Your task to perform on an android device: toggle pop-ups in chrome Image 0: 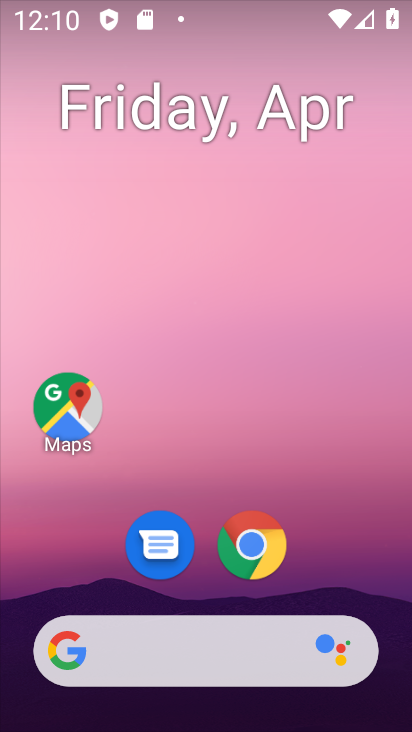
Step 0: click (246, 554)
Your task to perform on an android device: toggle pop-ups in chrome Image 1: 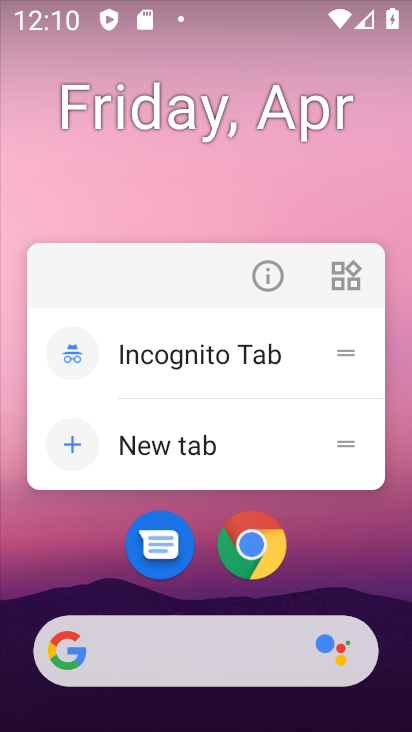
Step 1: click (250, 552)
Your task to perform on an android device: toggle pop-ups in chrome Image 2: 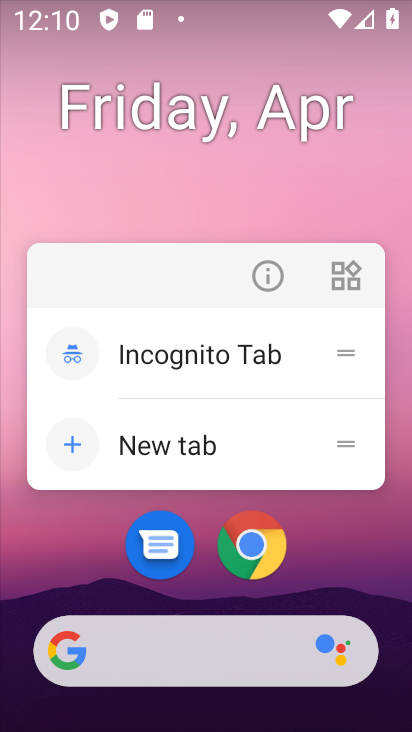
Step 2: click (267, 524)
Your task to perform on an android device: toggle pop-ups in chrome Image 3: 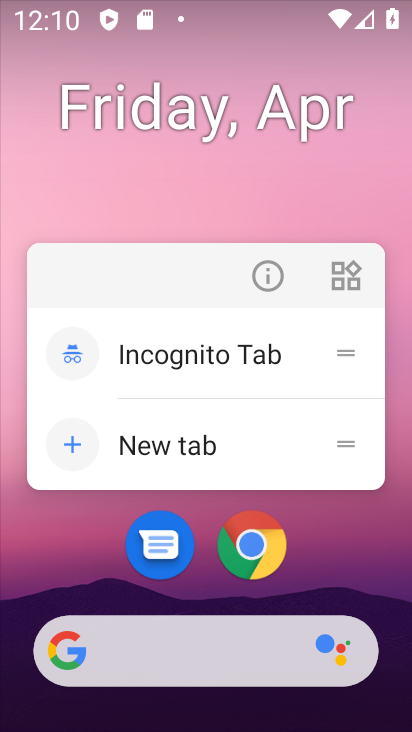
Step 3: click (245, 556)
Your task to perform on an android device: toggle pop-ups in chrome Image 4: 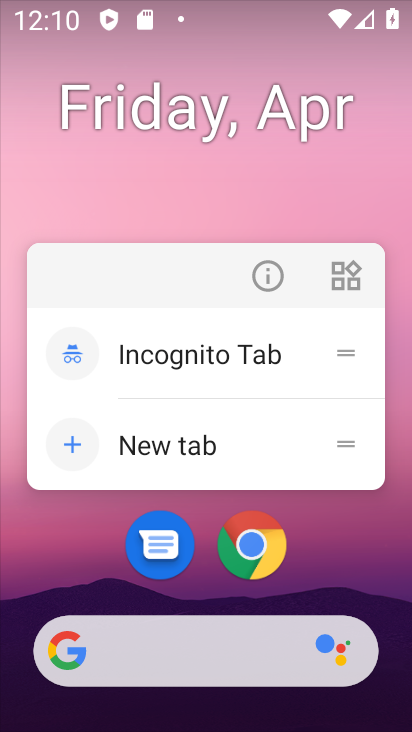
Step 4: click (244, 547)
Your task to perform on an android device: toggle pop-ups in chrome Image 5: 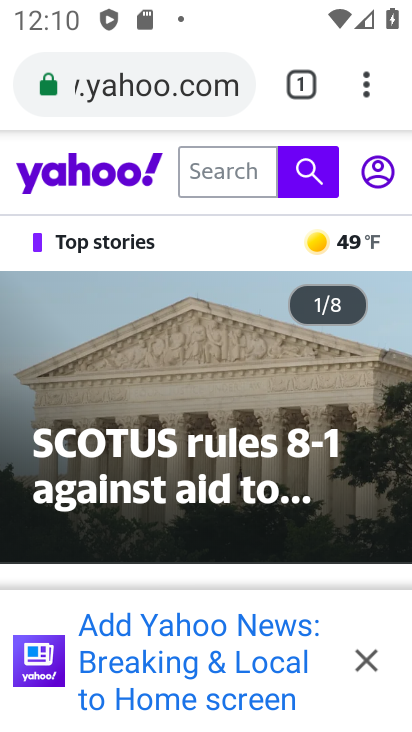
Step 5: click (367, 73)
Your task to perform on an android device: toggle pop-ups in chrome Image 6: 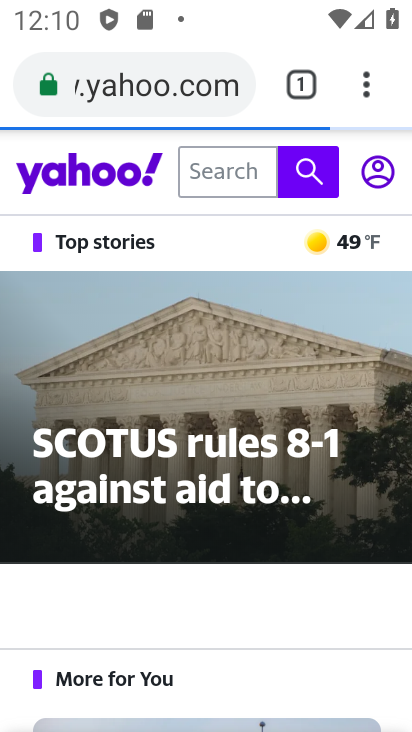
Step 6: click (360, 84)
Your task to perform on an android device: toggle pop-ups in chrome Image 7: 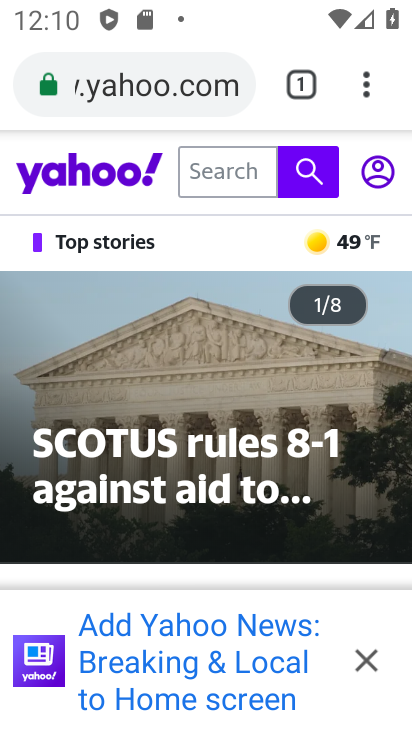
Step 7: click (369, 84)
Your task to perform on an android device: toggle pop-ups in chrome Image 8: 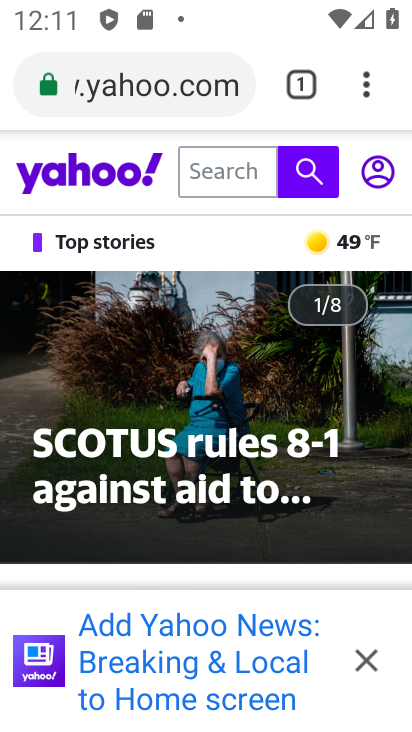
Step 8: click (362, 84)
Your task to perform on an android device: toggle pop-ups in chrome Image 9: 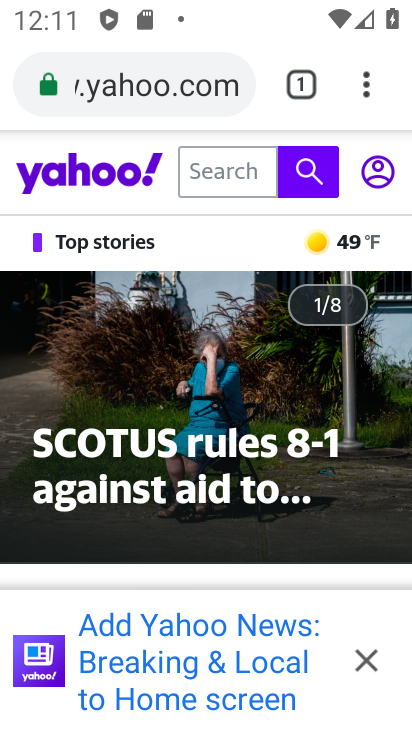
Step 9: click (364, 70)
Your task to perform on an android device: toggle pop-ups in chrome Image 10: 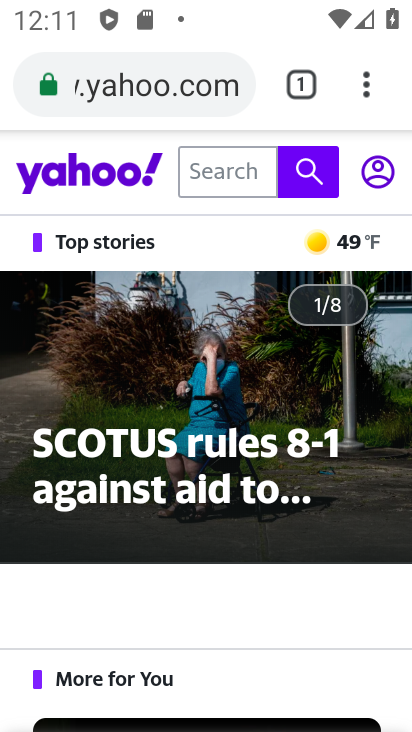
Step 10: click (364, 90)
Your task to perform on an android device: toggle pop-ups in chrome Image 11: 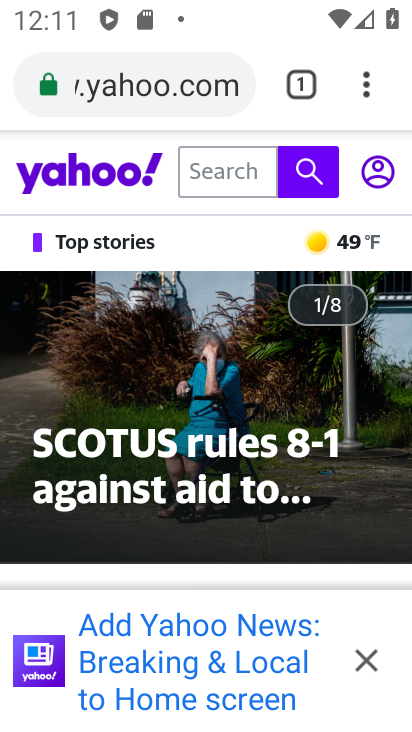
Step 11: click (367, 82)
Your task to perform on an android device: toggle pop-ups in chrome Image 12: 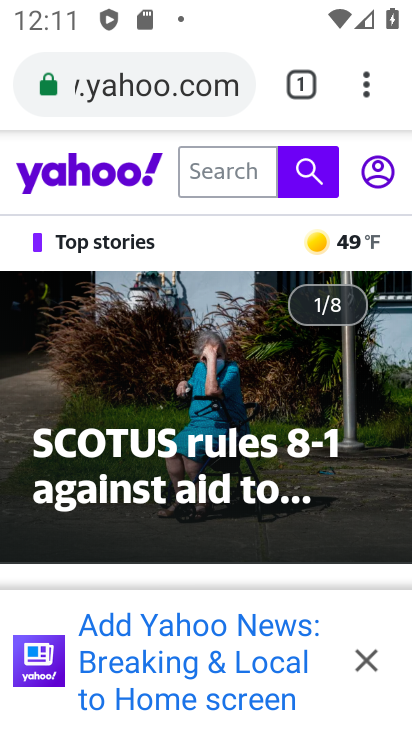
Step 12: click (367, 85)
Your task to perform on an android device: toggle pop-ups in chrome Image 13: 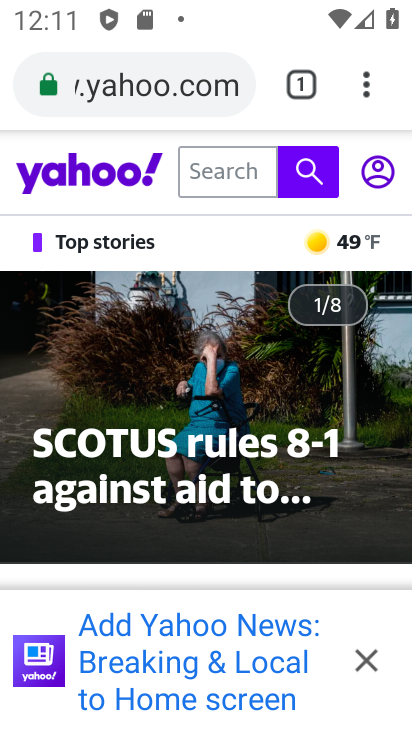
Step 13: click (366, 75)
Your task to perform on an android device: toggle pop-ups in chrome Image 14: 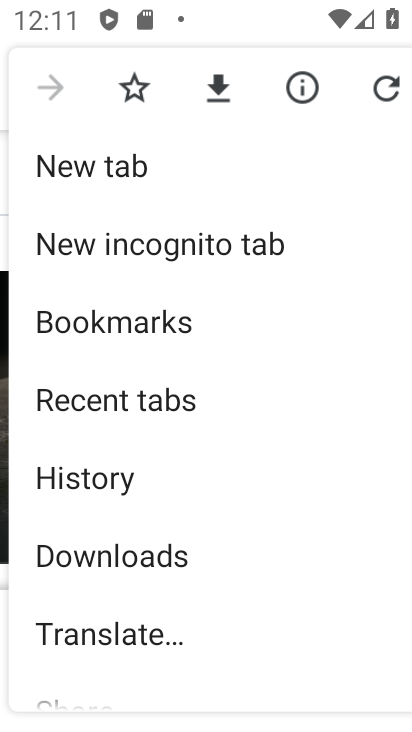
Step 14: drag from (170, 641) to (183, 218)
Your task to perform on an android device: toggle pop-ups in chrome Image 15: 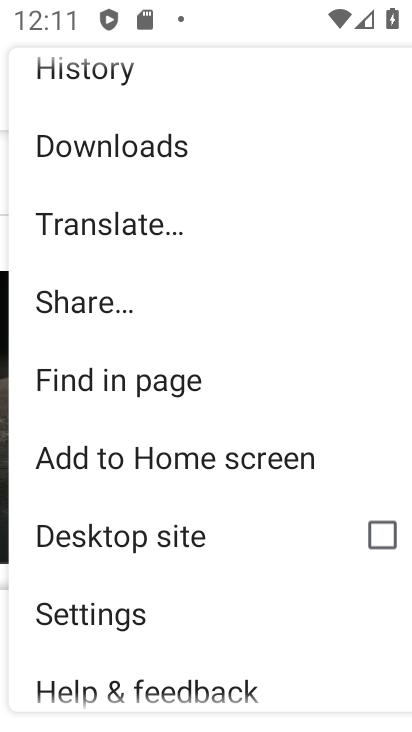
Step 15: click (106, 611)
Your task to perform on an android device: toggle pop-ups in chrome Image 16: 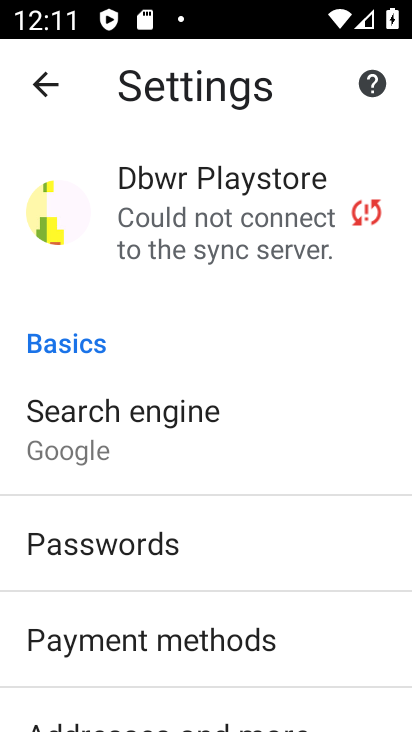
Step 16: drag from (266, 630) to (270, 139)
Your task to perform on an android device: toggle pop-ups in chrome Image 17: 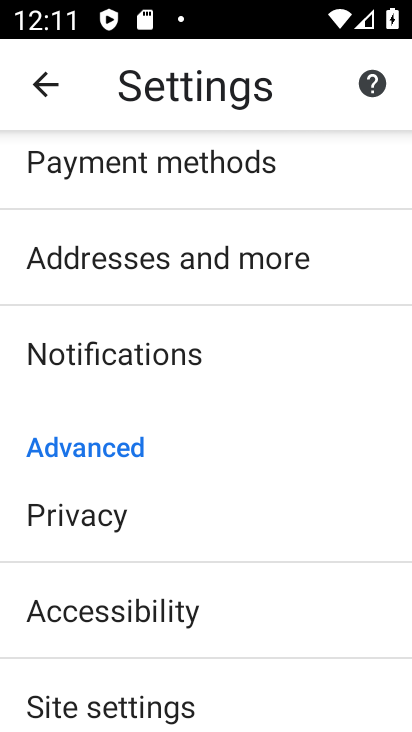
Step 17: drag from (156, 666) to (207, 190)
Your task to perform on an android device: toggle pop-ups in chrome Image 18: 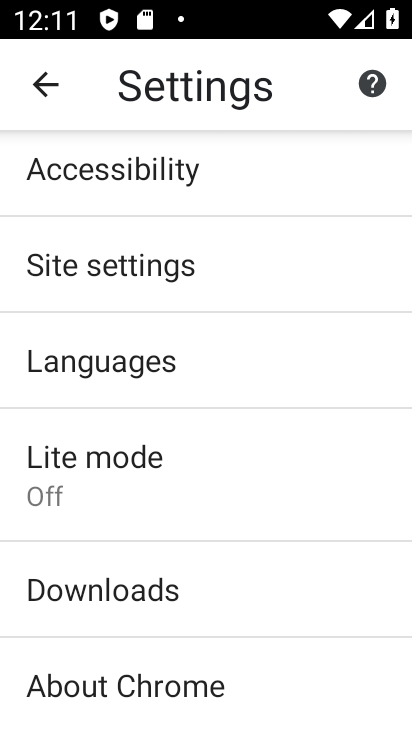
Step 18: click (111, 271)
Your task to perform on an android device: toggle pop-ups in chrome Image 19: 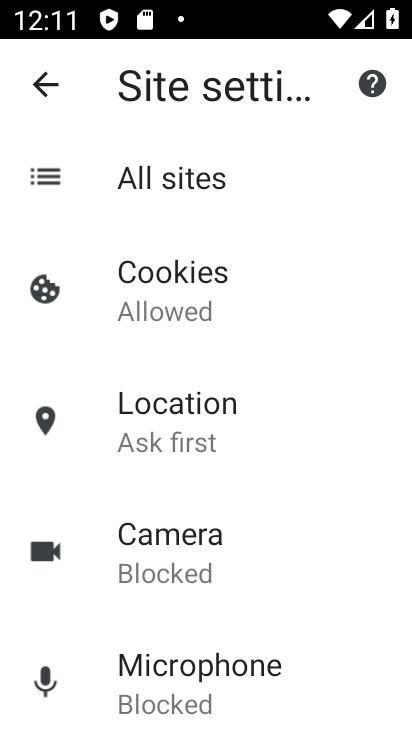
Step 19: drag from (253, 639) to (253, 70)
Your task to perform on an android device: toggle pop-ups in chrome Image 20: 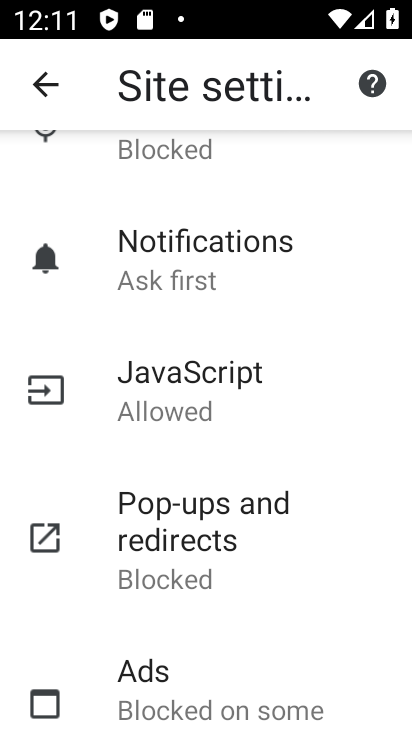
Step 20: drag from (228, 504) to (218, 72)
Your task to perform on an android device: toggle pop-ups in chrome Image 21: 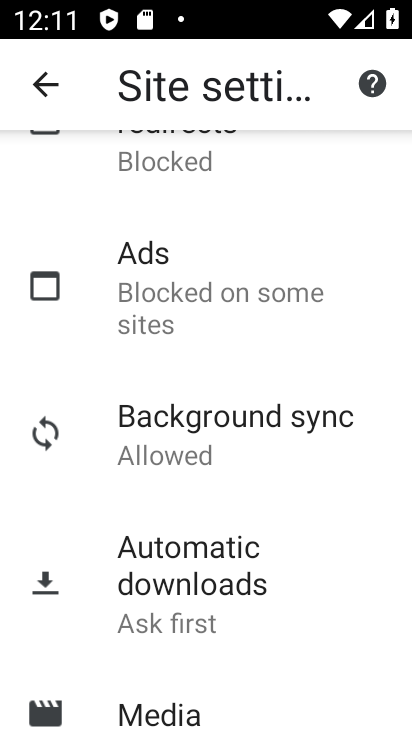
Step 21: drag from (244, 336) to (257, 724)
Your task to perform on an android device: toggle pop-ups in chrome Image 22: 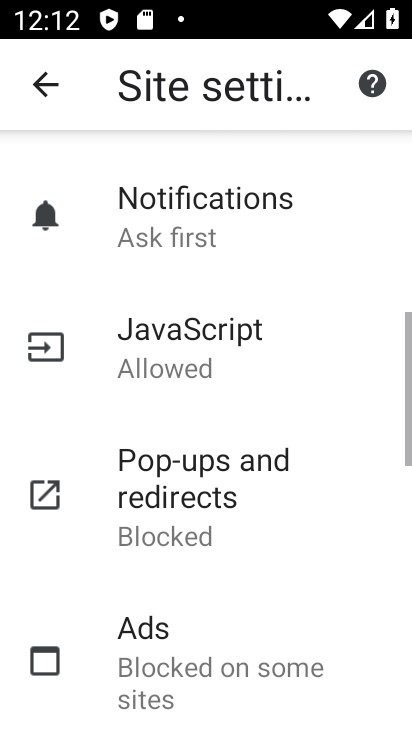
Step 22: click (188, 516)
Your task to perform on an android device: toggle pop-ups in chrome Image 23: 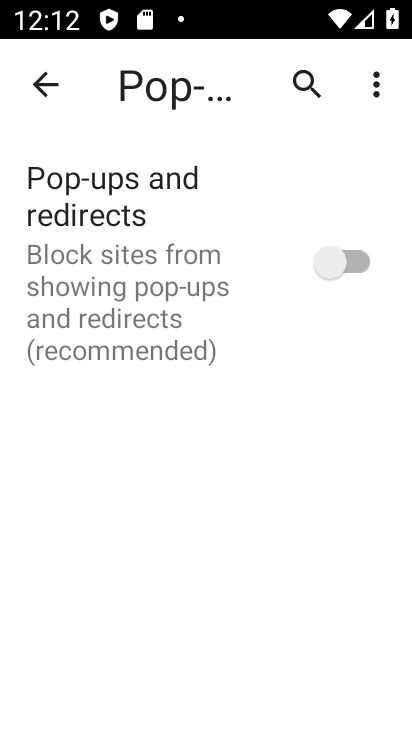
Step 23: click (360, 253)
Your task to perform on an android device: toggle pop-ups in chrome Image 24: 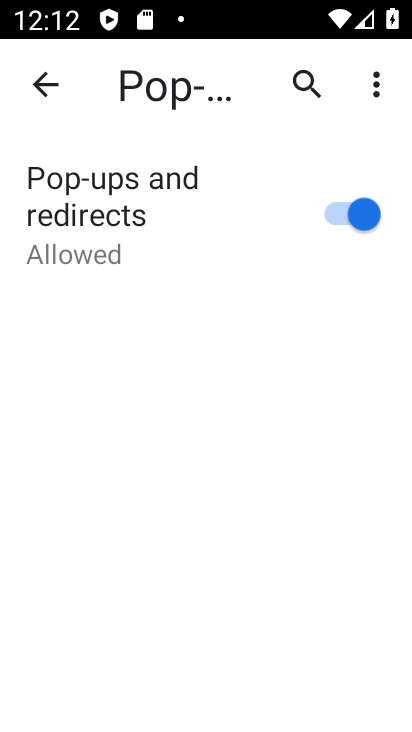
Step 24: task complete